Your task to perform on an android device: Clear the shopping cart on walmart.com. Search for razer naga on walmart.com, select the first entry, add it to the cart, then select checkout. Image 0: 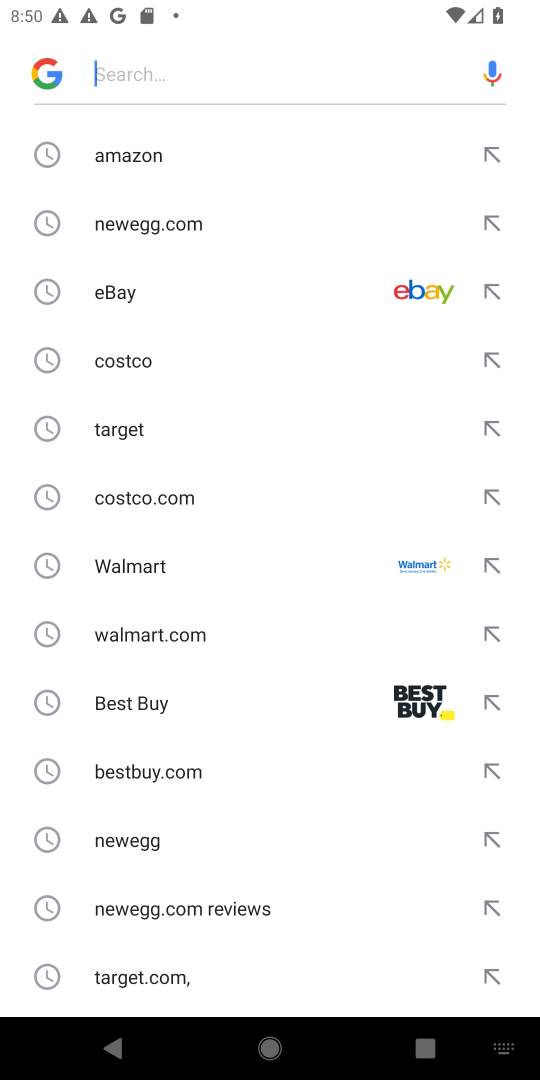
Step 0: press home button
Your task to perform on an android device: Clear the shopping cart on walmart.com. Search for razer naga on walmart.com, select the first entry, add it to the cart, then select checkout. Image 1: 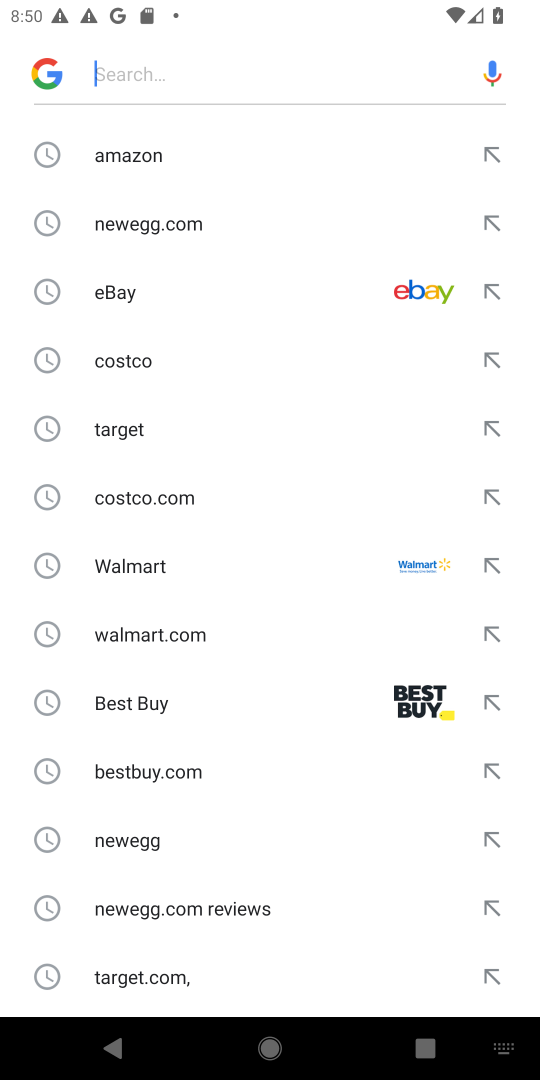
Step 1: press home button
Your task to perform on an android device: Clear the shopping cart on walmart.com. Search for razer naga on walmart.com, select the first entry, add it to the cart, then select checkout. Image 2: 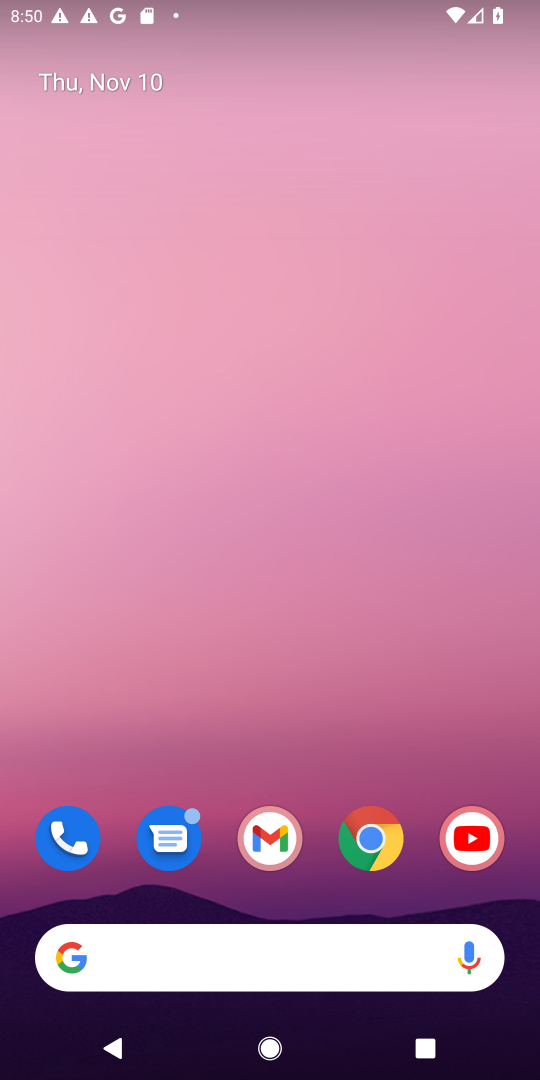
Step 2: drag from (317, 901) to (196, 60)
Your task to perform on an android device: Clear the shopping cart on walmart.com. Search for razer naga on walmart.com, select the first entry, add it to the cart, then select checkout. Image 3: 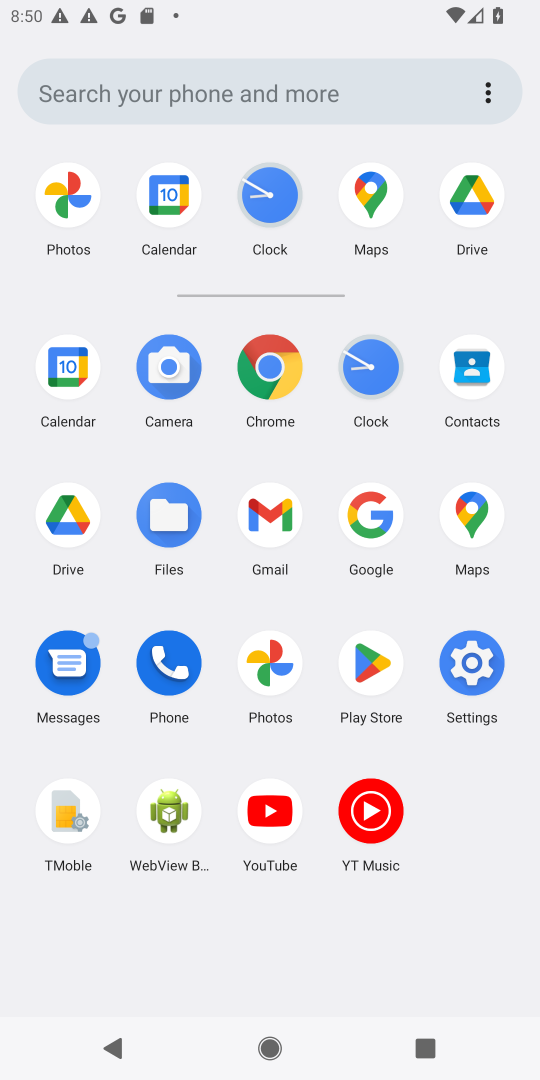
Step 3: click (273, 372)
Your task to perform on an android device: Clear the shopping cart on walmart.com. Search for razer naga on walmart.com, select the first entry, add it to the cart, then select checkout. Image 4: 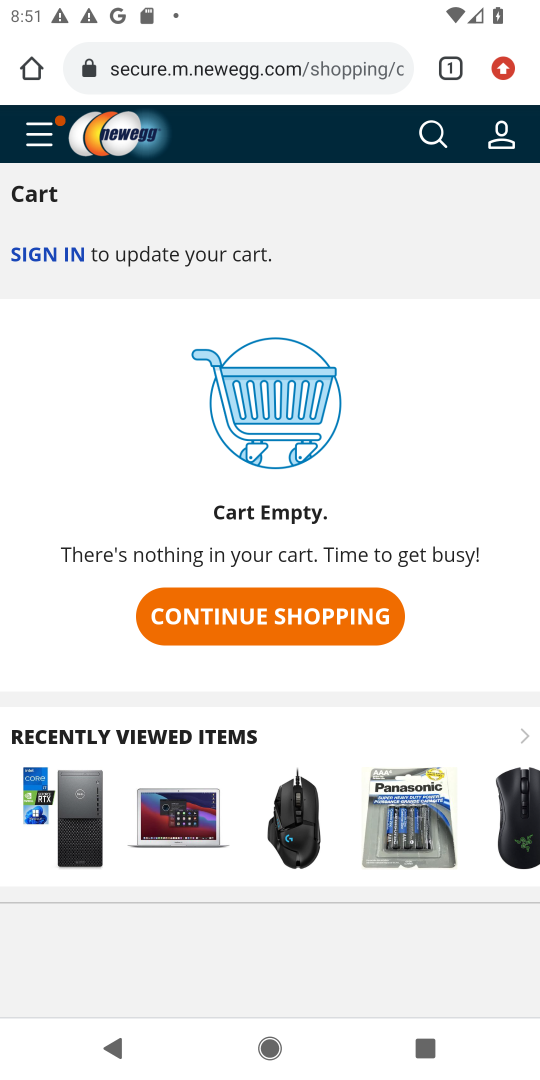
Step 4: click (300, 56)
Your task to perform on an android device: Clear the shopping cart on walmart.com. Search for razer naga on walmart.com, select the first entry, add it to the cart, then select checkout. Image 5: 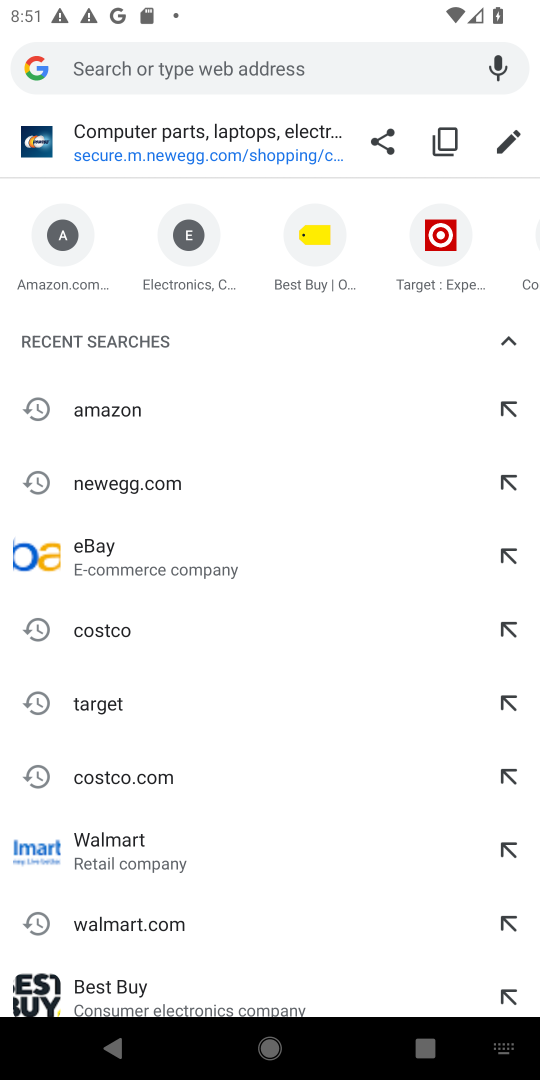
Step 5: type "walmart.com"
Your task to perform on an android device: Clear the shopping cart on walmart.com. Search for razer naga on walmart.com, select the first entry, add it to the cart, then select checkout. Image 6: 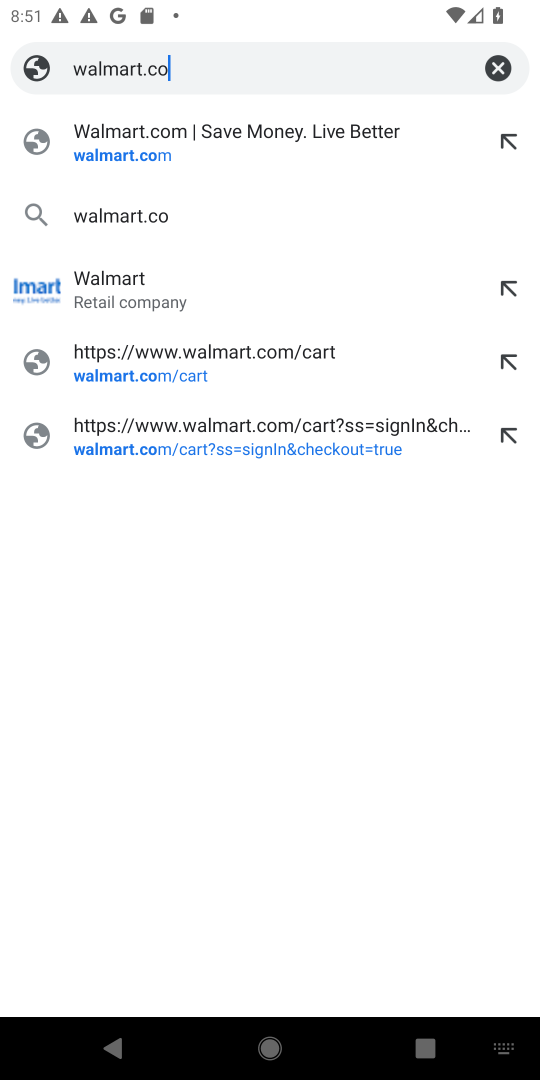
Step 6: press enter
Your task to perform on an android device: Clear the shopping cart on walmart.com. Search for razer naga on walmart.com, select the first entry, add it to the cart, then select checkout. Image 7: 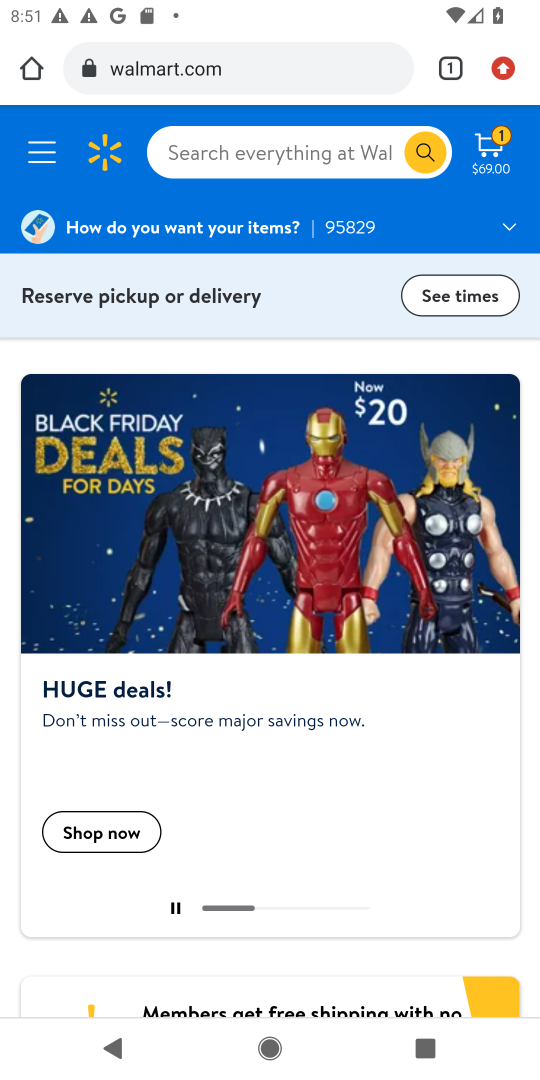
Step 7: click (487, 151)
Your task to perform on an android device: Clear the shopping cart on walmart.com. Search for razer naga on walmart.com, select the first entry, add it to the cart, then select checkout. Image 8: 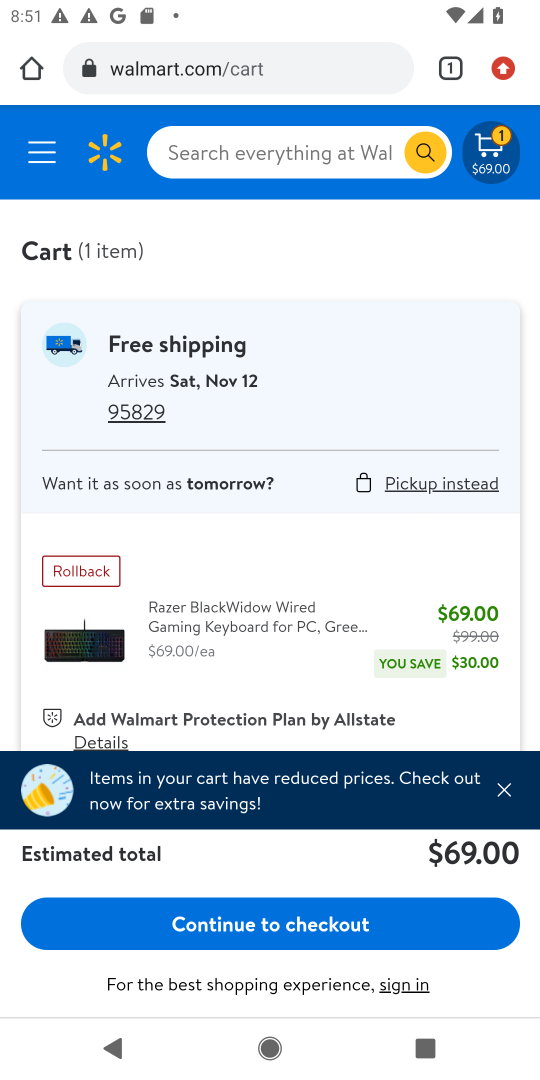
Step 8: drag from (322, 627) to (358, 181)
Your task to perform on an android device: Clear the shopping cart on walmart.com. Search for razer naga on walmart.com, select the first entry, add it to the cart, then select checkout. Image 9: 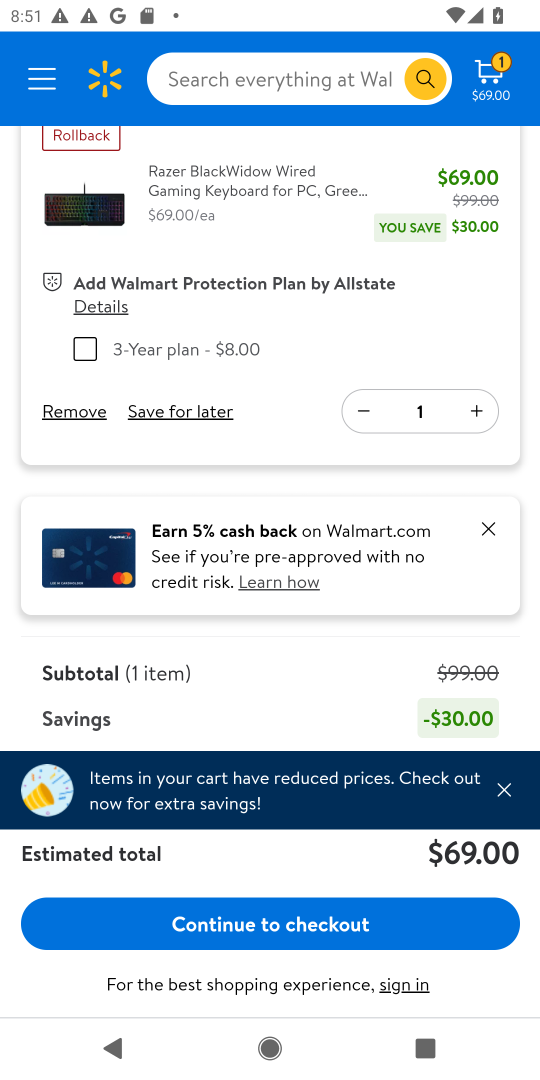
Step 9: click (84, 412)
Your task to perform on an android device: Clear the shopping cart on walmart.com. Search for razer naga on walmart.com, select the first entry, add it to the cart, then select checkout. Image 10: 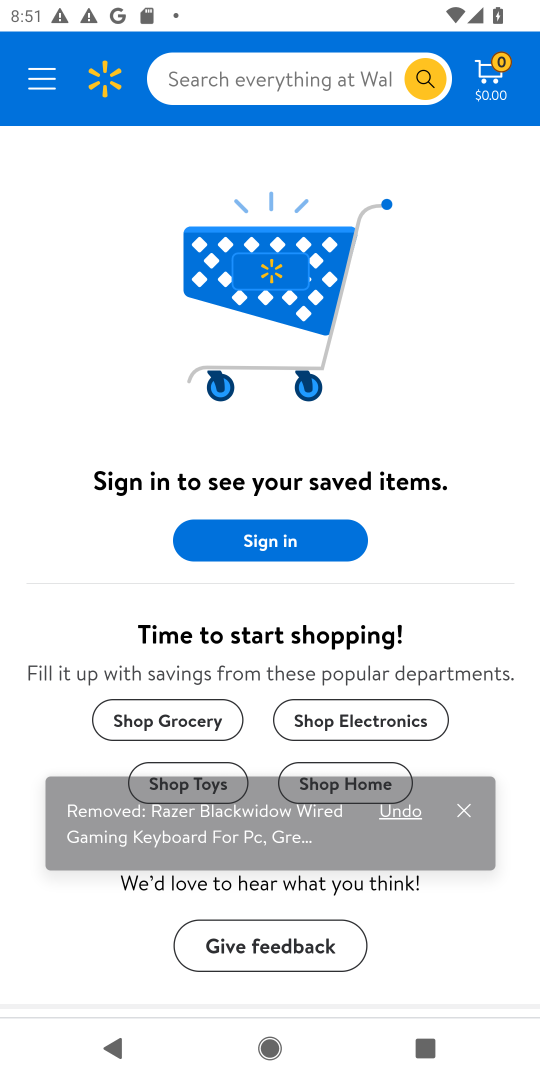
Step 10: click (331, 79)
Your task to perform on an android device: Clear the shopping cart on walmart.com. Search for razer naga on walmart.com, select the first entry, add it to the cart, then select checkout. Image 11: 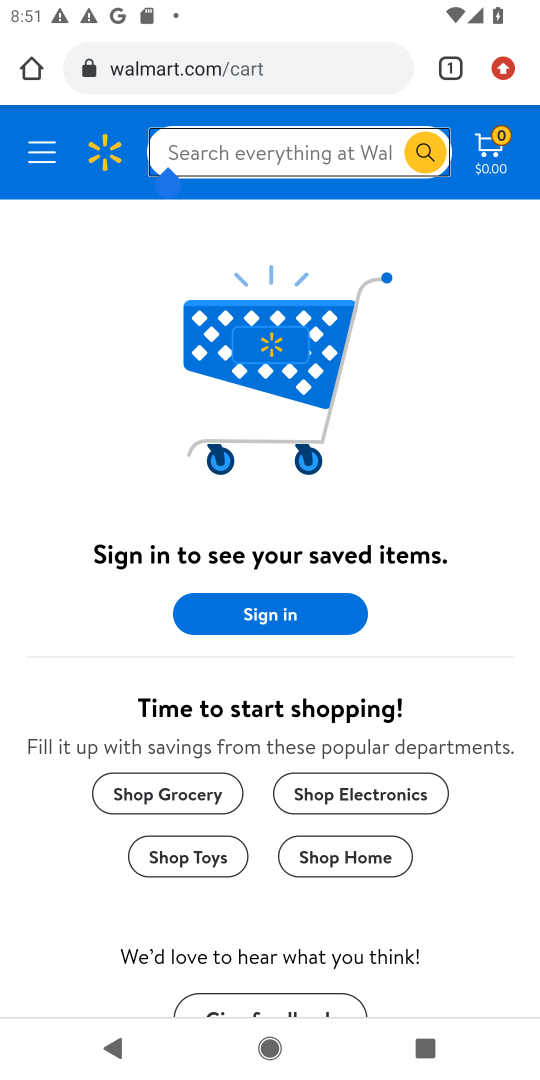
Step 11: type "razer naga"
Your task to perform on an android device: Clear the shopping cart on walmart.com. Search for razer naga on walmart.com, select the first entry, add it to the cart, then select checkout. Image 12: 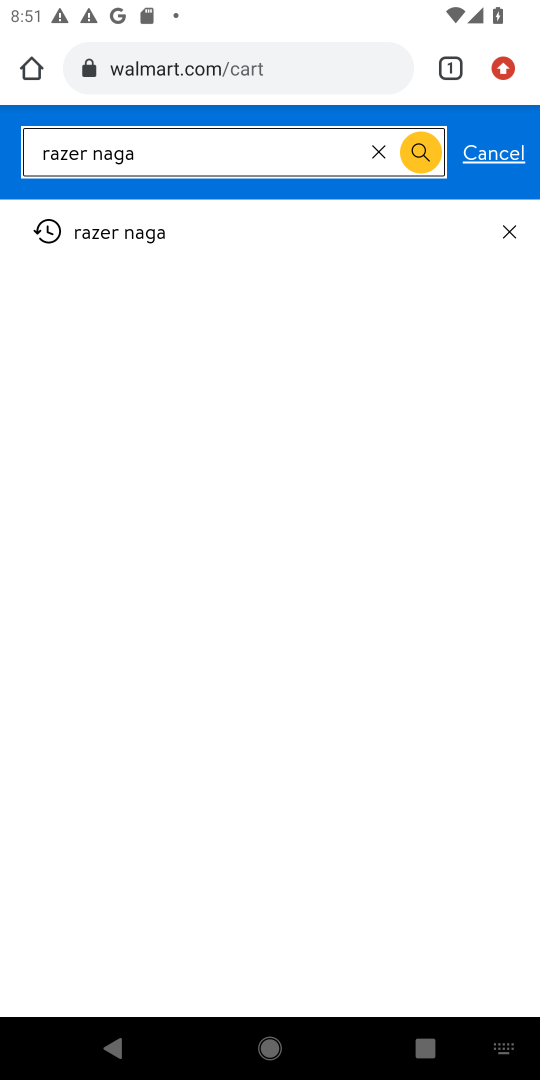
Step 12: press enter
Your task to perform on an android device: Clear the shopping cart on walmart.com. Search for razer naga on walmart.com, select the first entry, add it to the cart, then select checkout. Image 13: 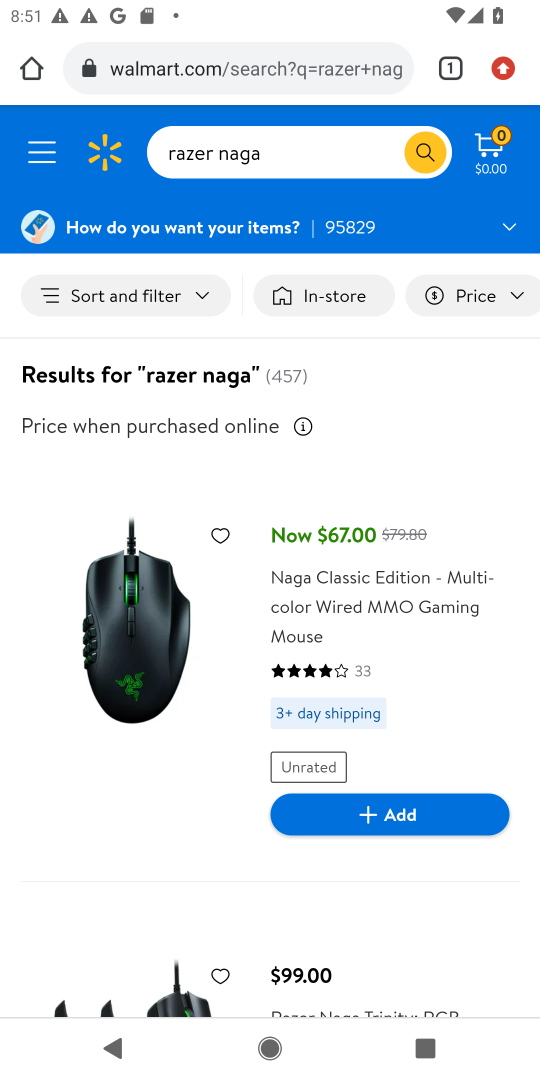
Step 13: drag from (414, 735) to (415, 382)
Your task to perform on an android device: Clear the shopping cart on walmart.com. Search for razer naga on walmart.com, select the first entry, add it to the cart, then select checkout. Image 14: 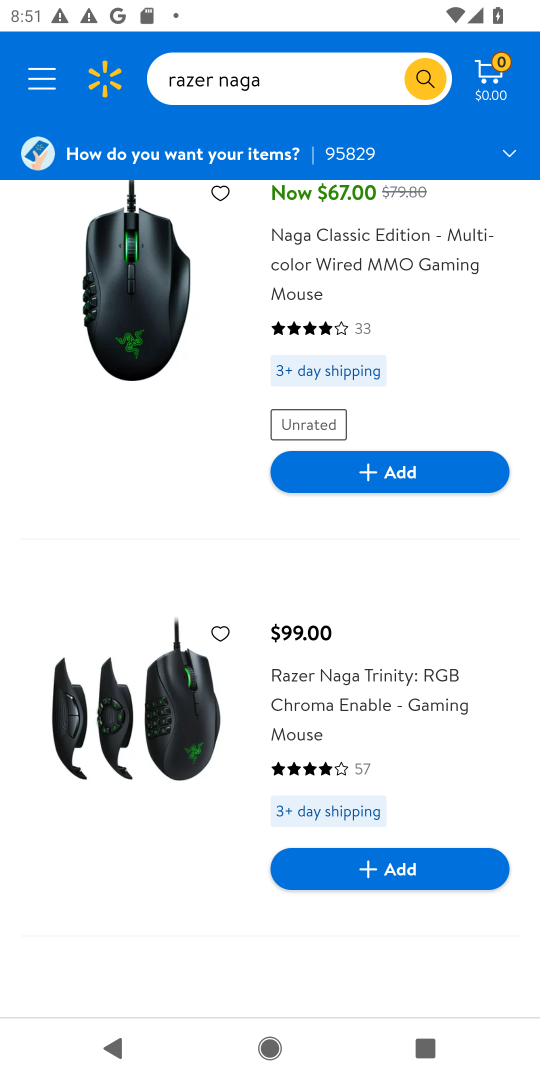
Step 14: drag from (267, 518) to (234, 915)
Your task to perform on an android device: Clear the shopping cart on walmart.com. Search for razer naga on walmart.com, select the first entry, add it to the cart, then select checkout. Image 15: 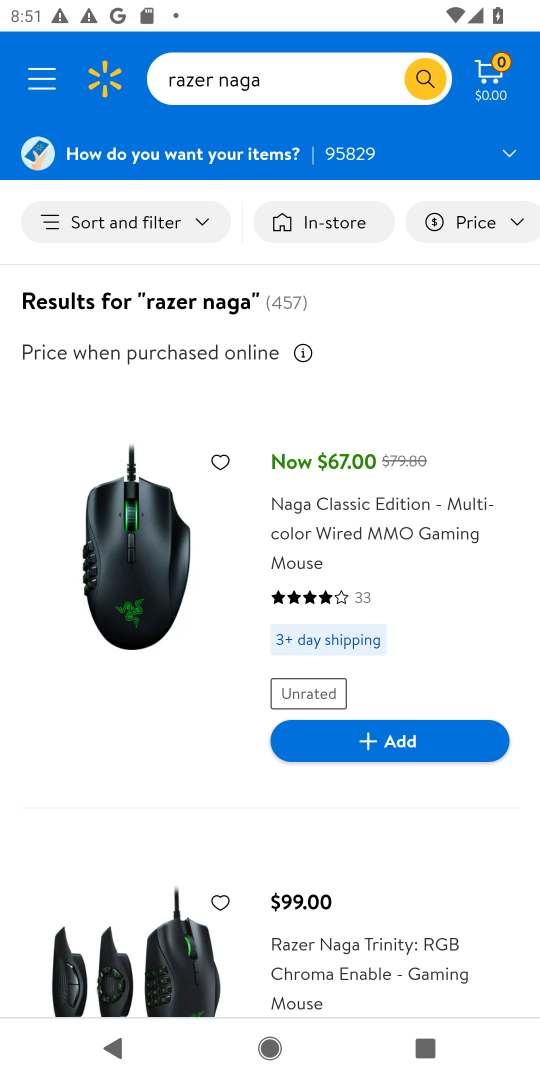
Step 15: click (403, 732)
Your task to perform on an android device: Clear the shopping cart on walmart.com. Search for razer naga on walmart.com, select the first entry, add it to the cart, then select checkout. Image 16: 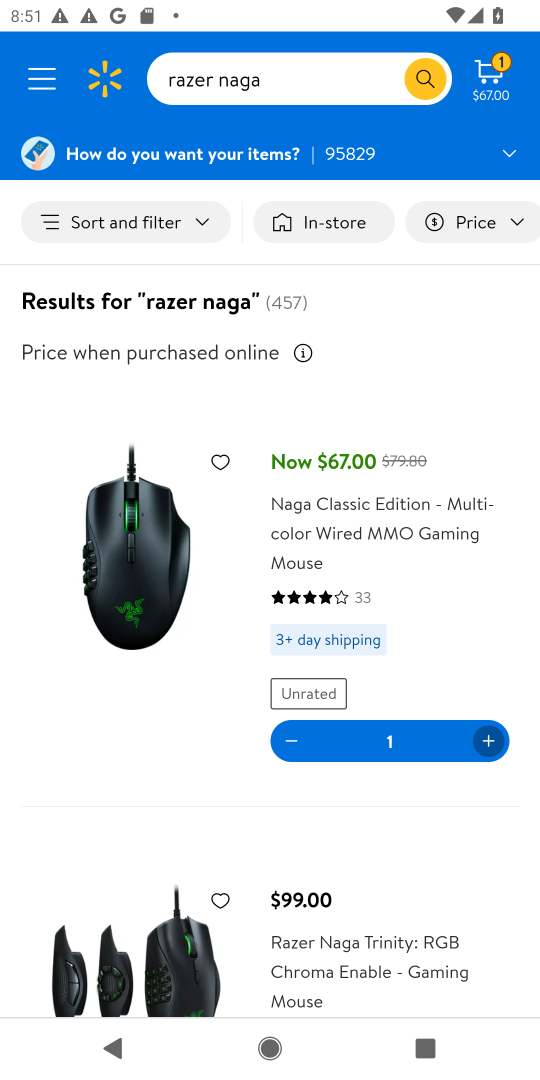
Step 16: click (491, 55)
Your task to perform on an android device: Clear the shopping cart on walmart.com. Search for razer naga on walmart.com, select the first entry, add it to the cart, then select checkout. Image 17: 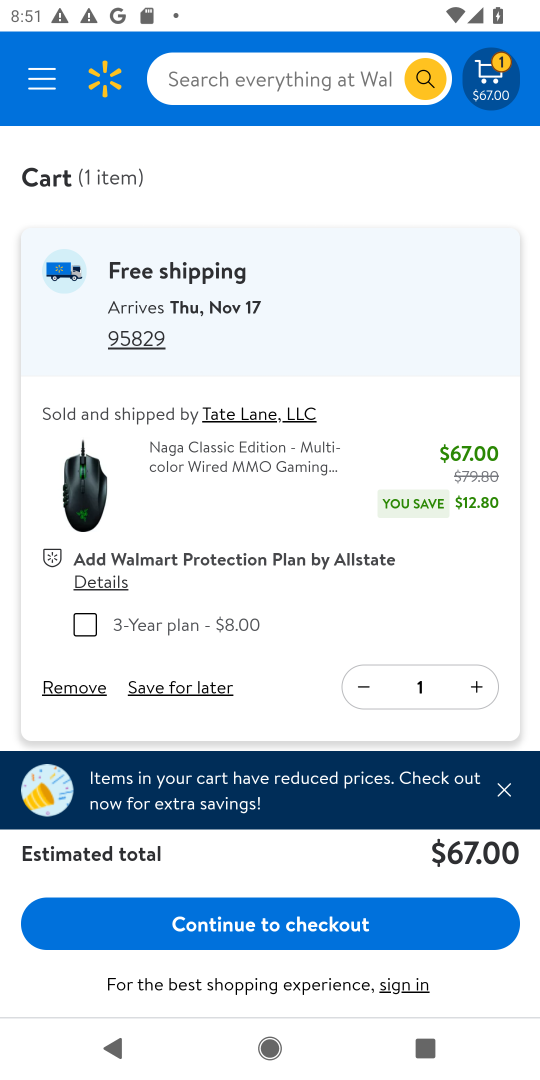
Step 17: click (338, 915)
Your task to perform on an android device: Clear the shopping cart on walmart.com. Search for razer naga on walmart.com, select the first entry, add it to the cart, then select checkout. Image 18: 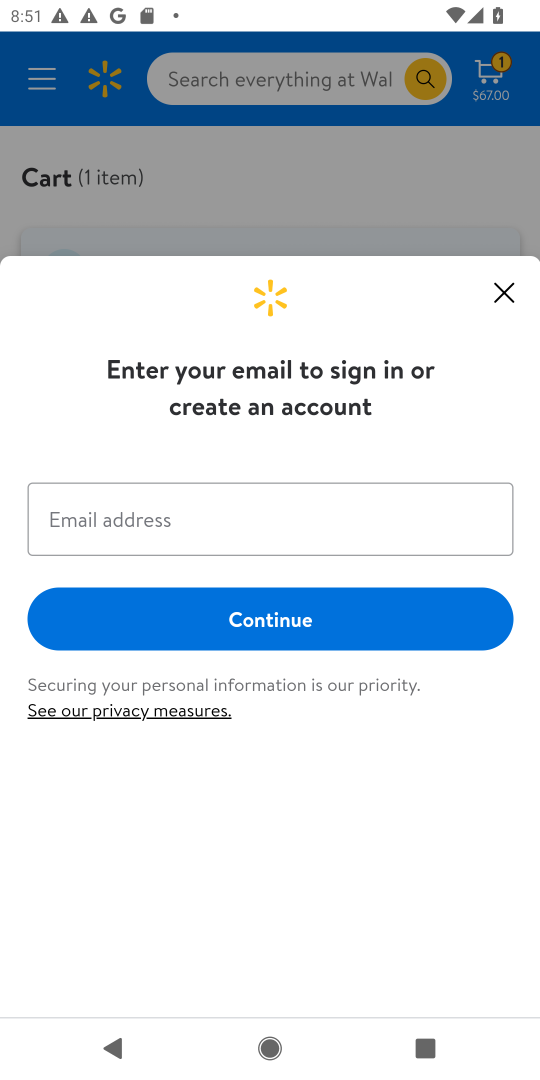
Step 18: task complete